Your task to perform on an android device: open app "Facebook Messenger" (install if not already installed) Image 0: 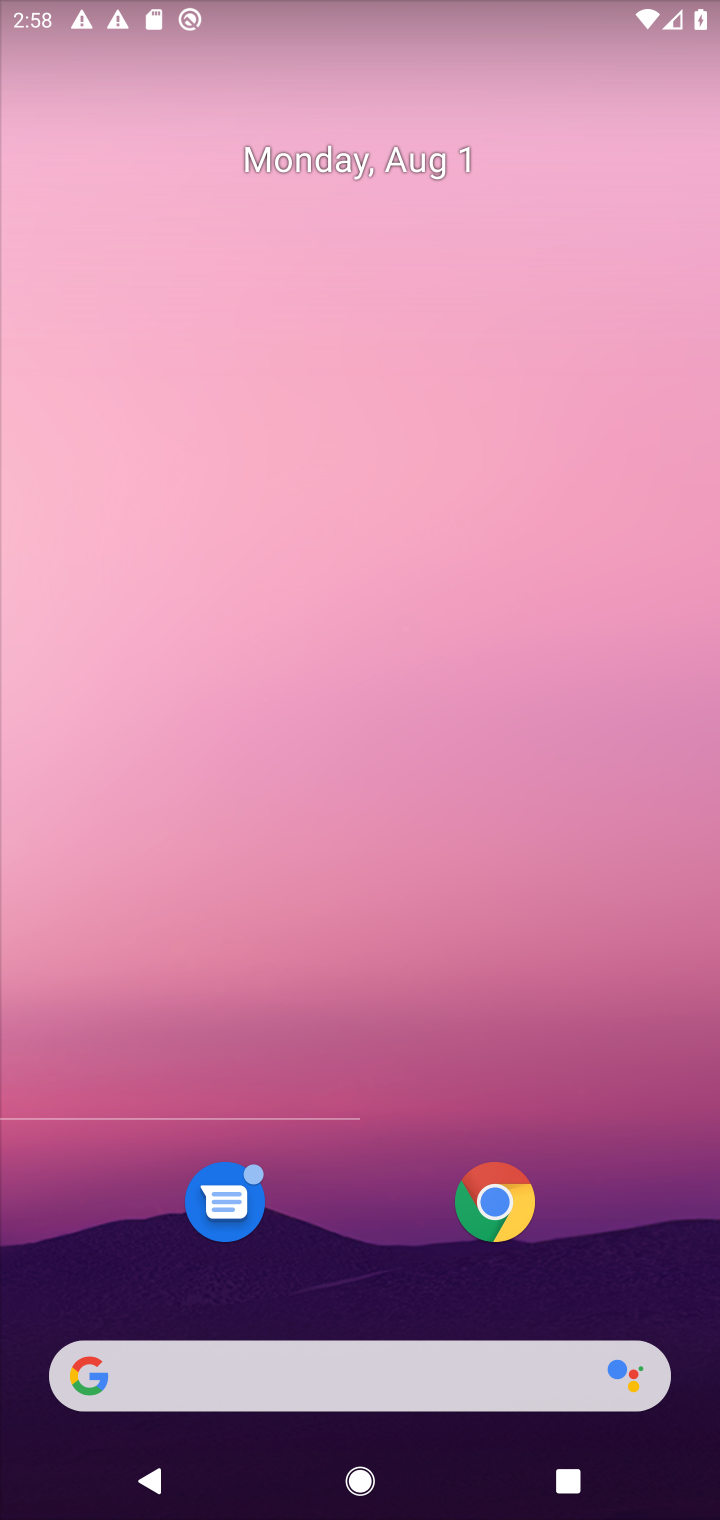
Step 0: press home button
Your task to perform on an android device: open app "Facebook Messenger" (install if not already installed) Image 1: 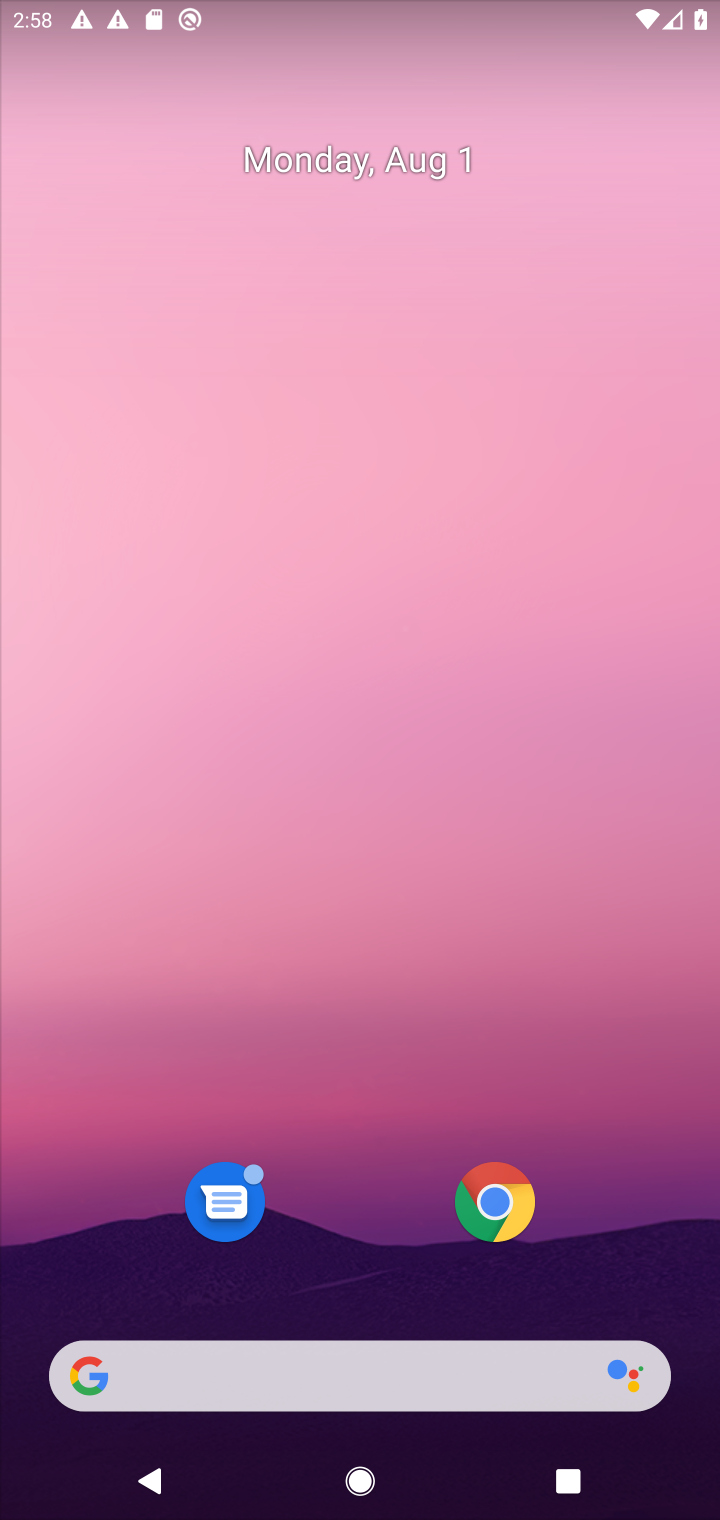
Step 1: drag from (608, 893) to (607, 201)
Your task to perform on an android device: open app "Facebook Messenger" (install if not already installed) Image 2: 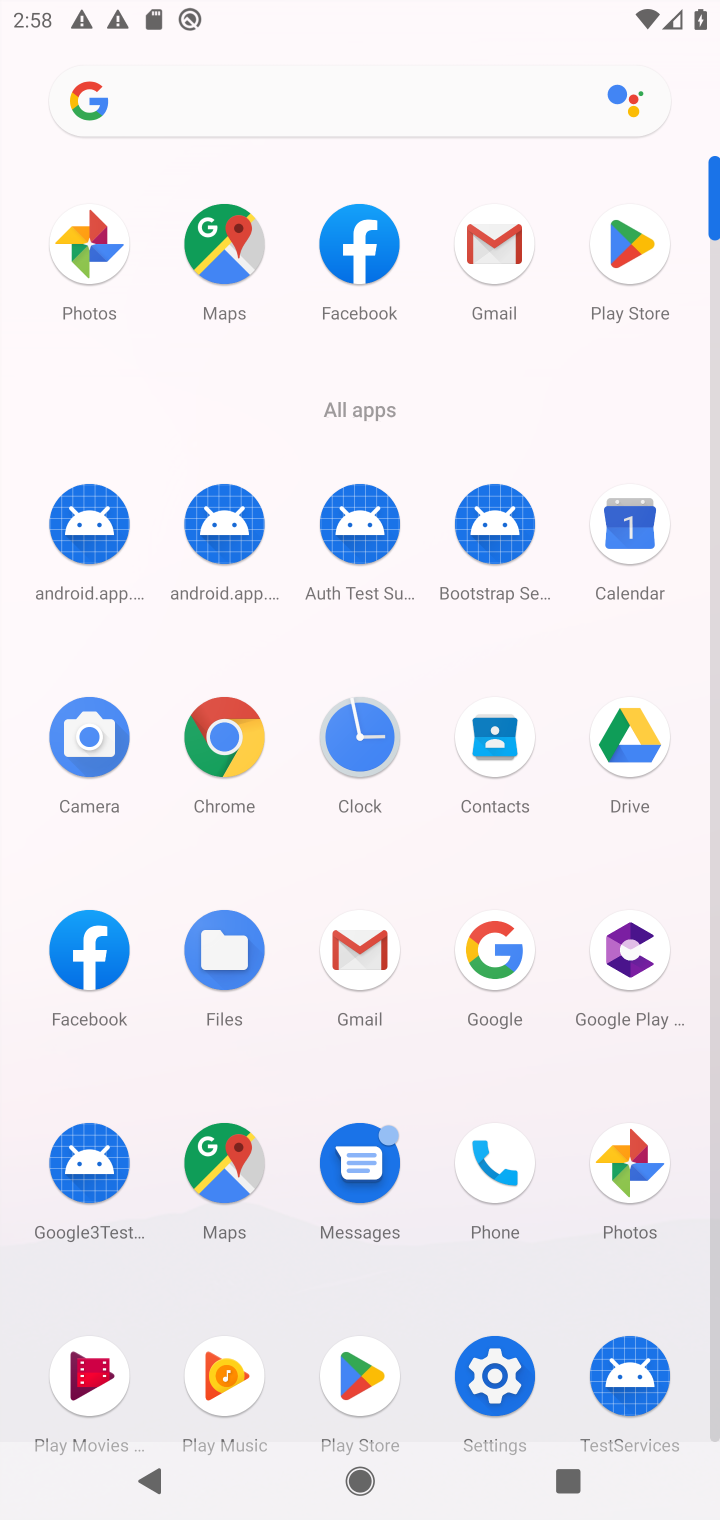
Step 2: click (352, 1383)
Your task to perform on an android device: open app "Facebook Messenger" (install if not already installed) Image 3: 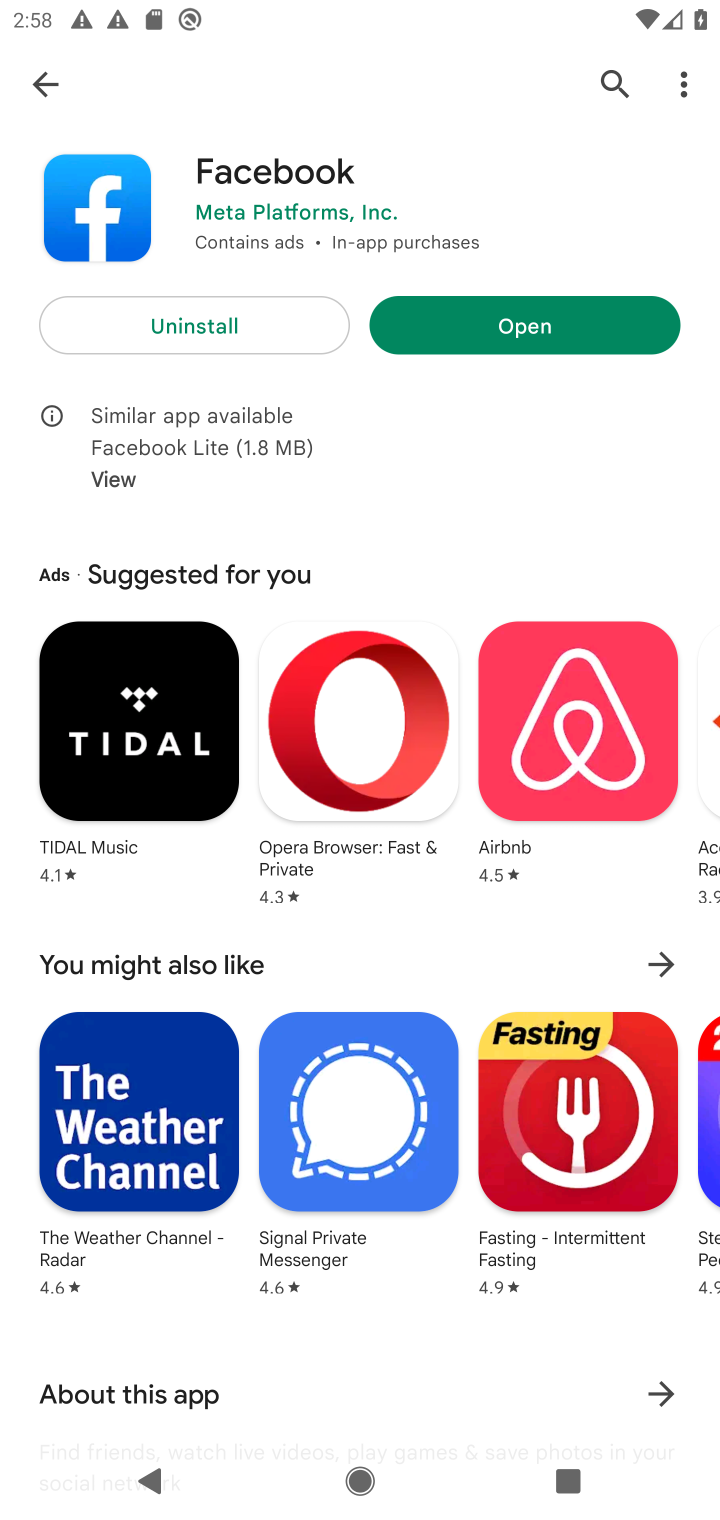
Step 3: click (623, 62)
Your task to perform on an android device: open app "Facebook Messenger" (install if not already installed) Image 4: 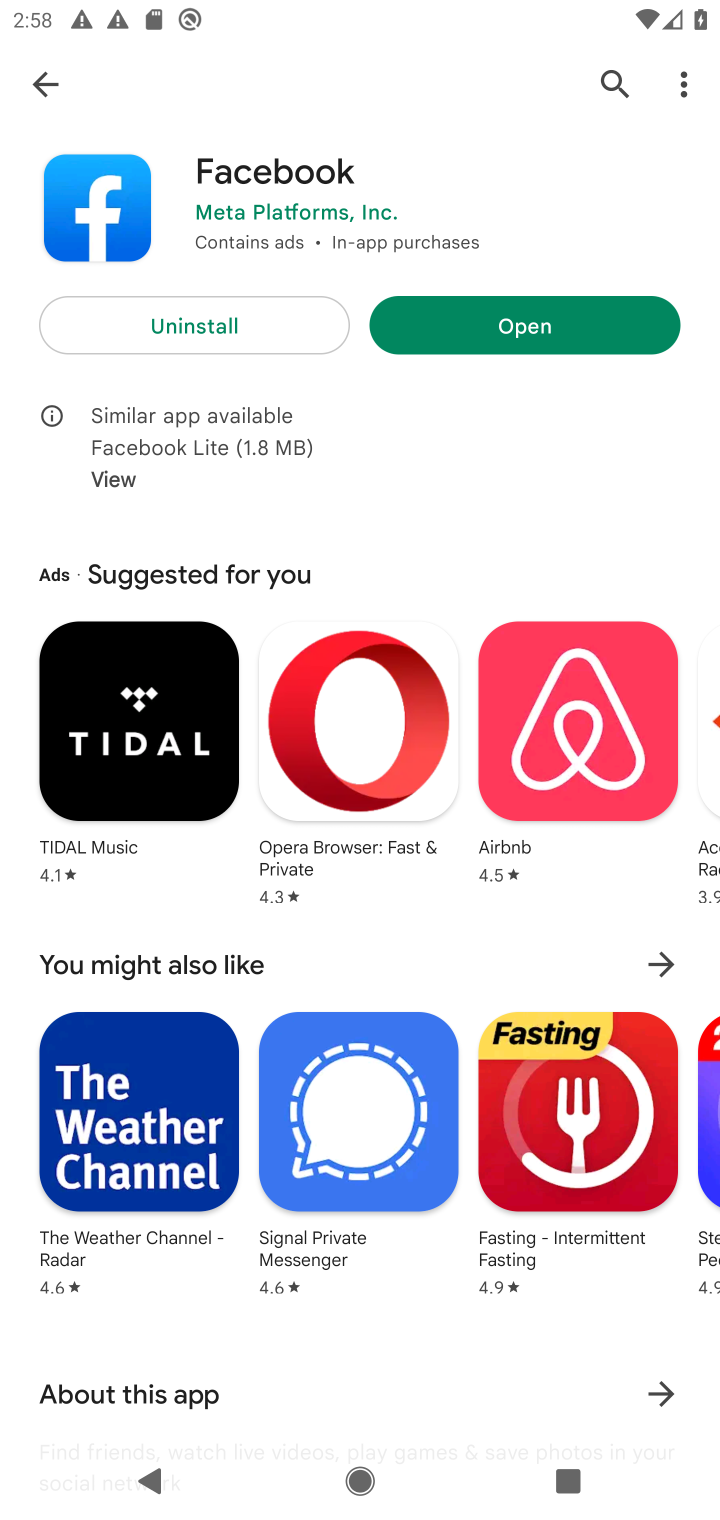
Step 4: click (613, 87)
Your task to perform on an android device: open app "Facebook Messenger" (install if not already installed) Image 5: 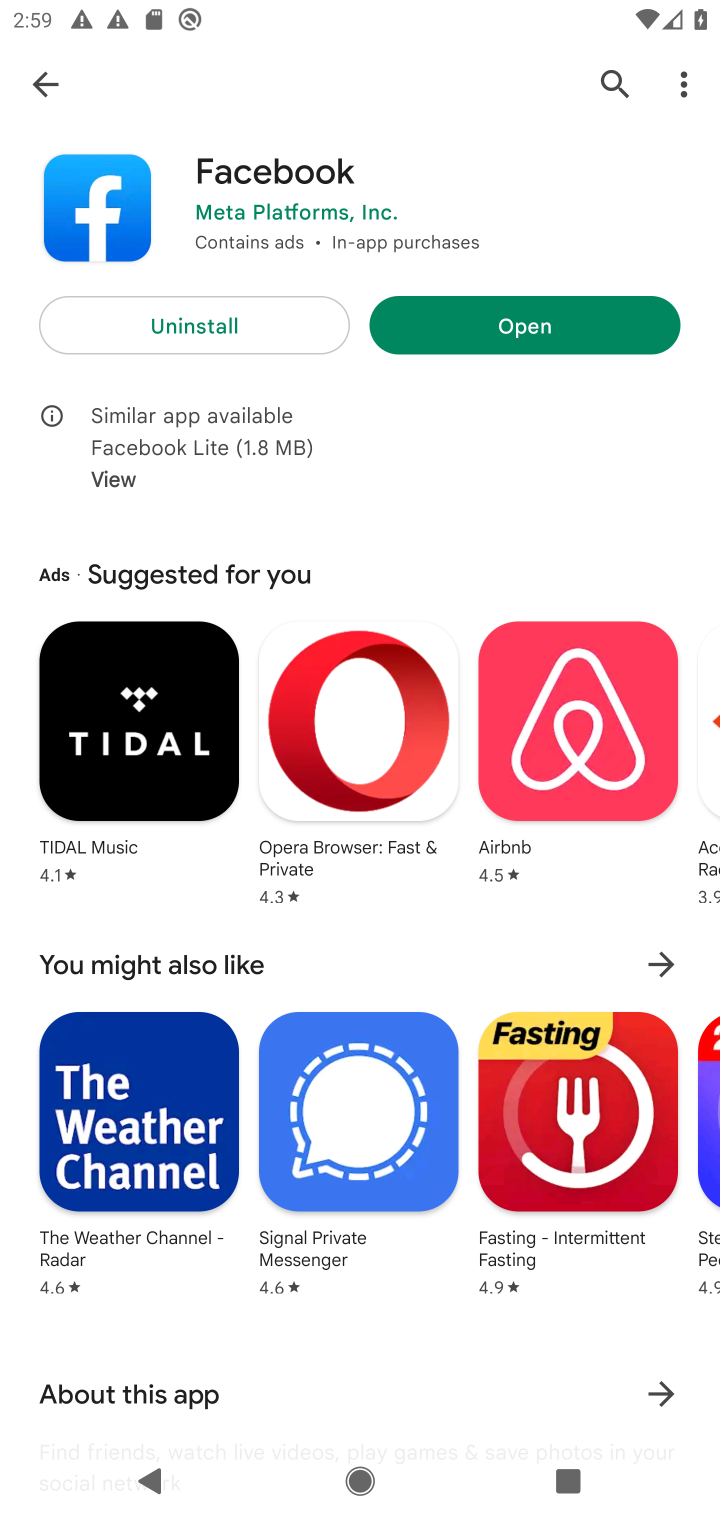
Step 5: click (600, 88)
Your task to perform on an android device: open app "Facebook Messenger" (install if not already installed) Image 6: 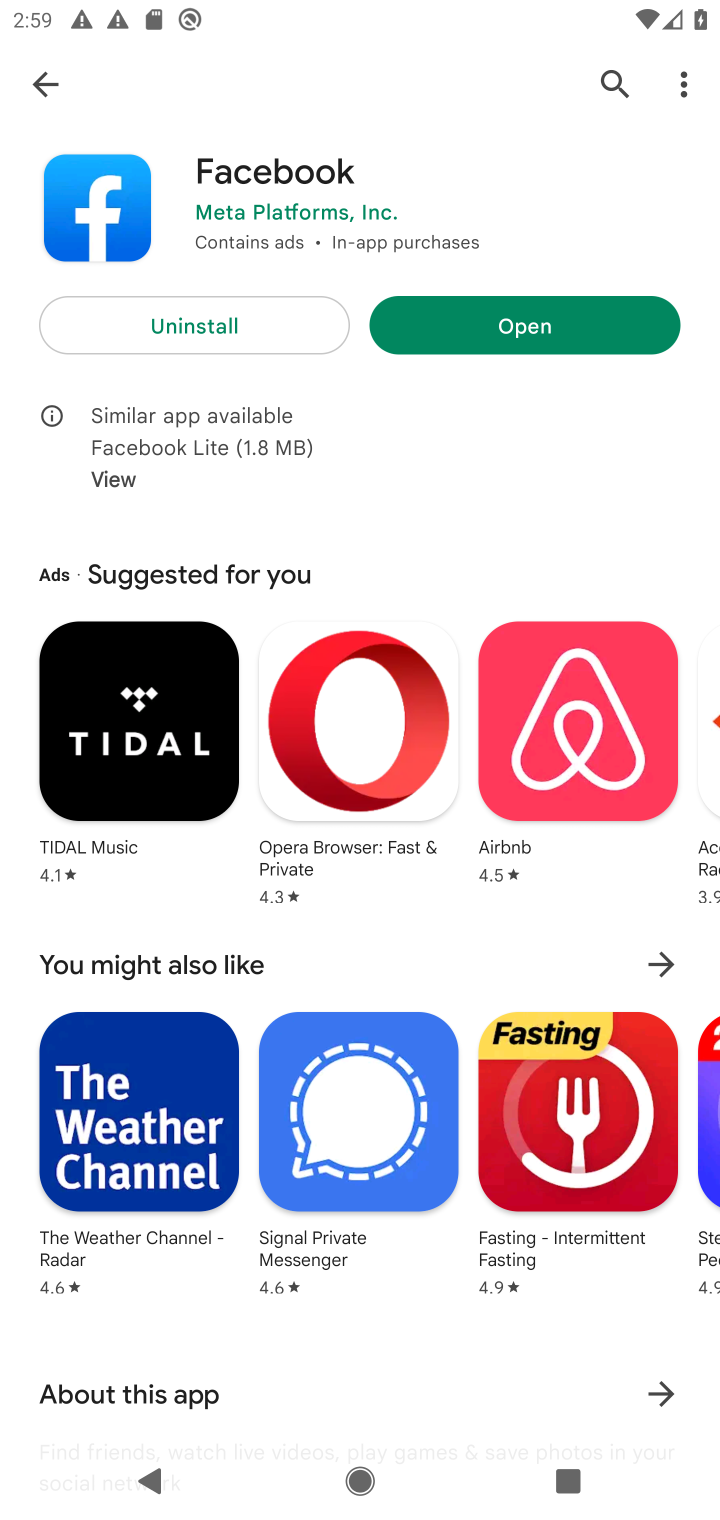
Step 6: click (46, 77)
Your task to perform on an android device: open app "Facebook Messenger" (install if not already installed) Image 7: 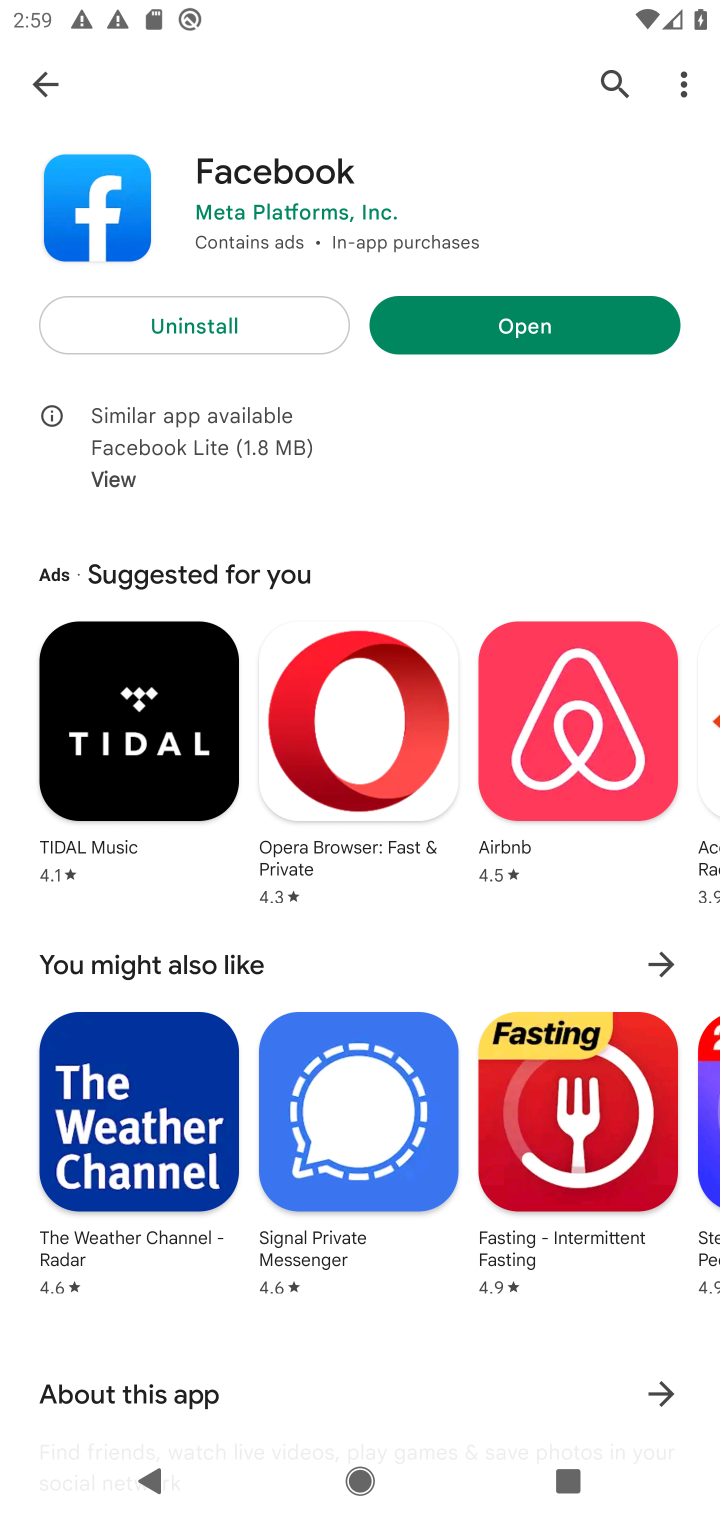
Step 7: press home button
Your task to perform on an android device: open app "Facebook Messenger" (install if not already installed) Image 8: 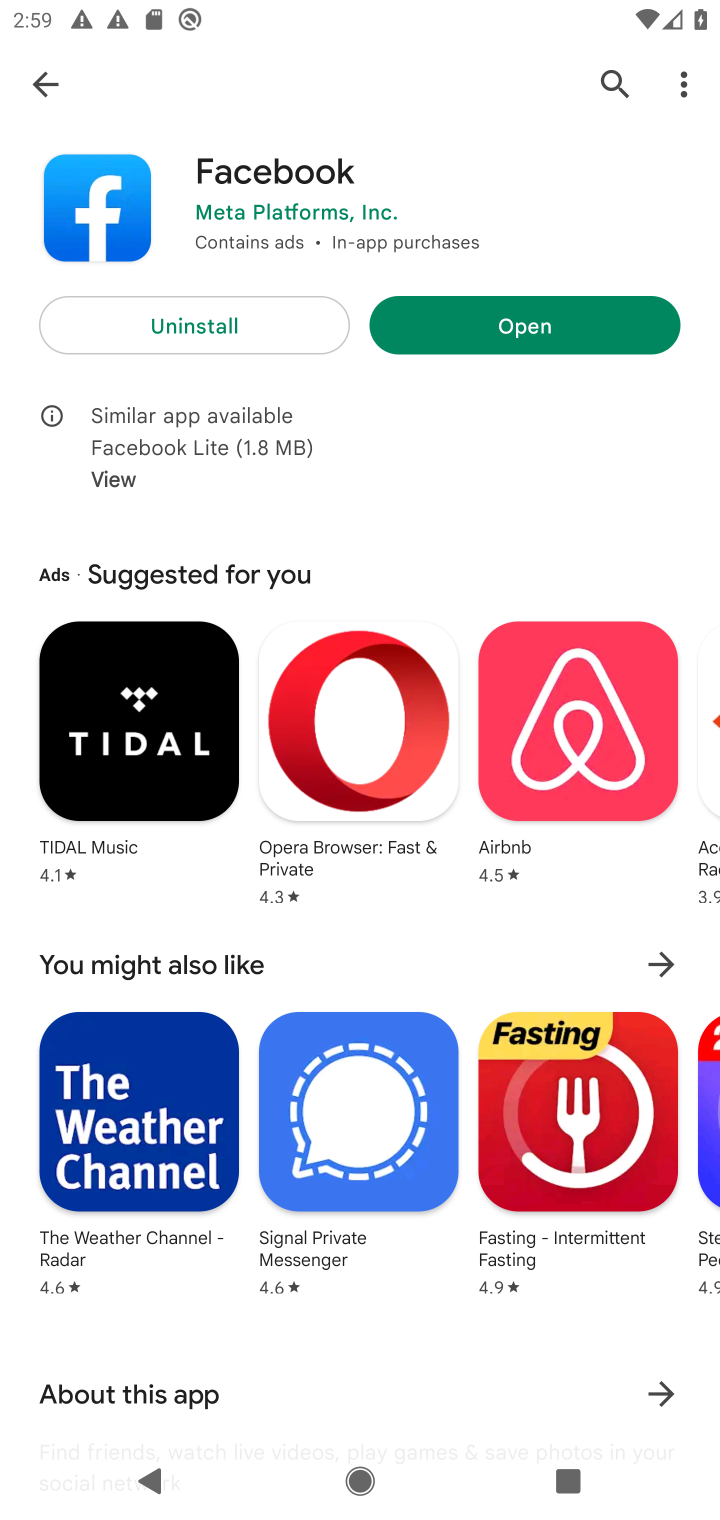
Step 8: press home button
Your task to perform on an android device: open app "Facebook Messenger" (install if not already installed) Image 9: 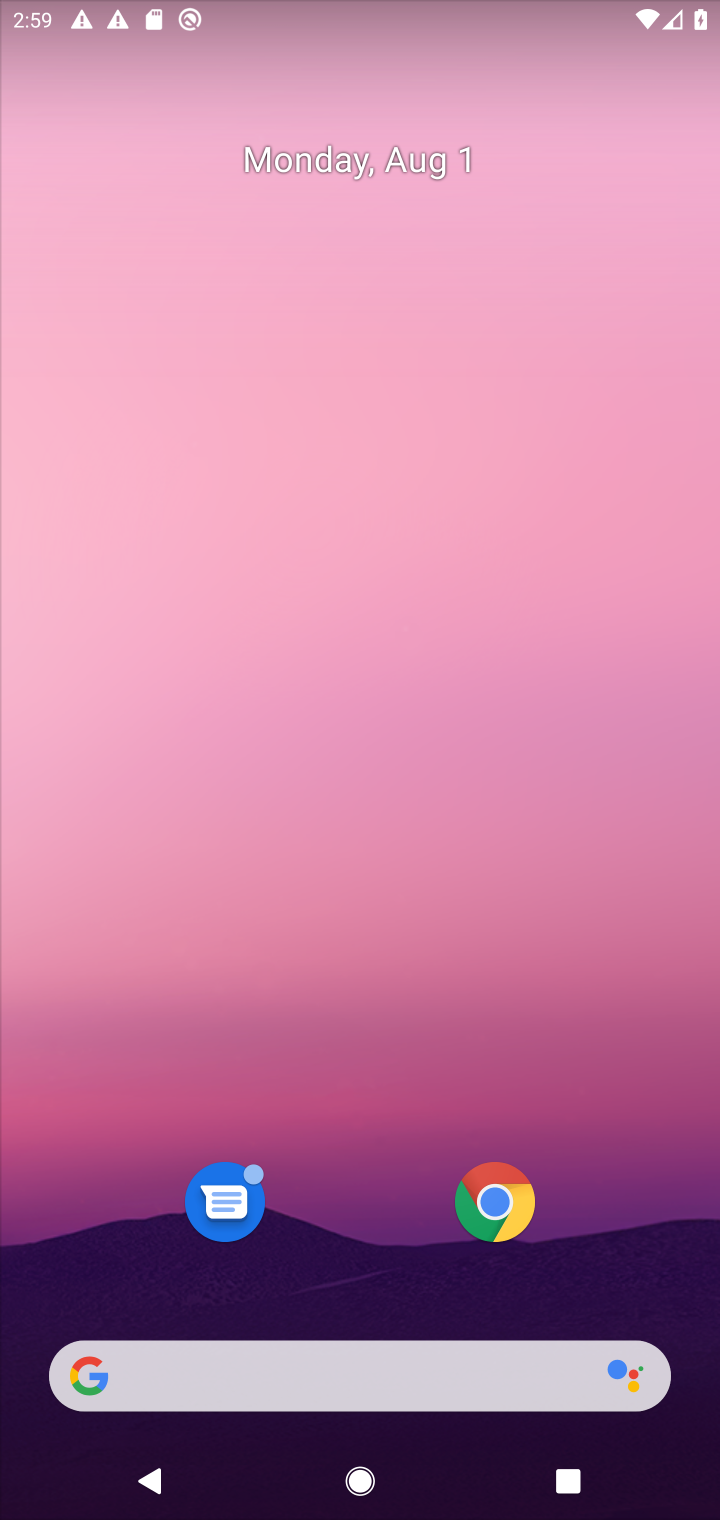
Step 9: click (556, 475)
Your task to perform on an android device: open app "Facebook Messenger" (install if not already installed) Image 10: 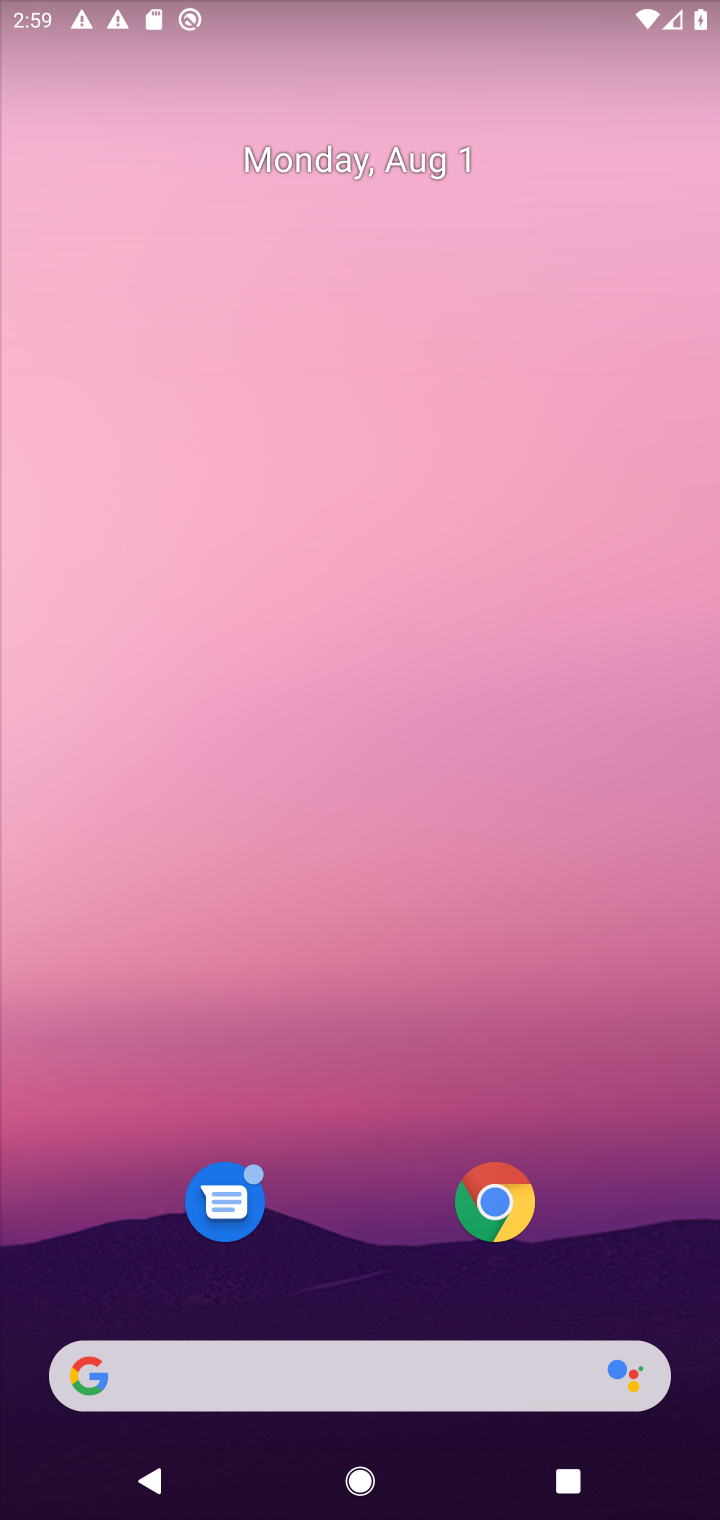
Step 10: drag from (620, 799) to (573, 213)
Your task to perform on an android device: open app "Facebook Messenger" (install if not already installed) Image 11: 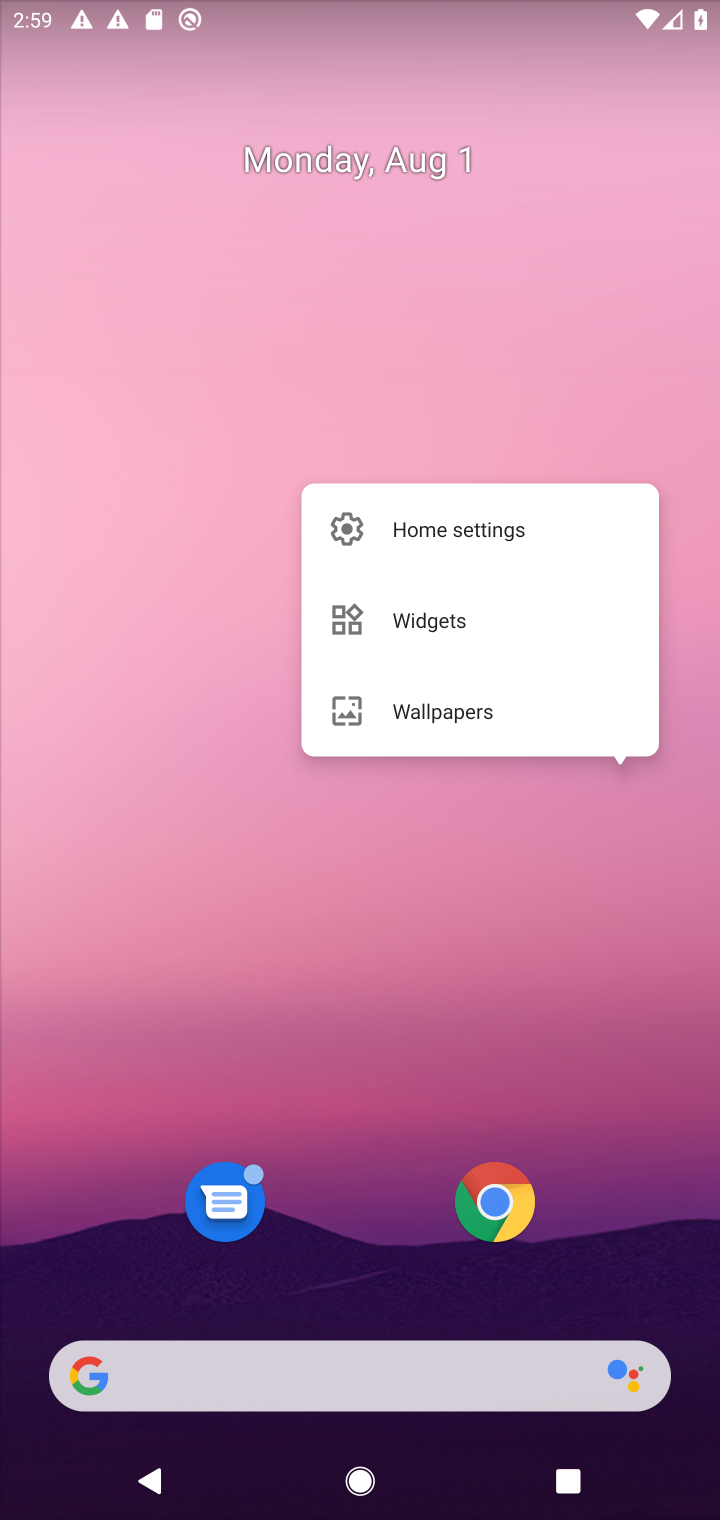
Step 11: drag from (506, 1063) to (445, 247)
Your task to perform on an android device: open app "Facebook Messenger" (install if not already installed) Image 12: 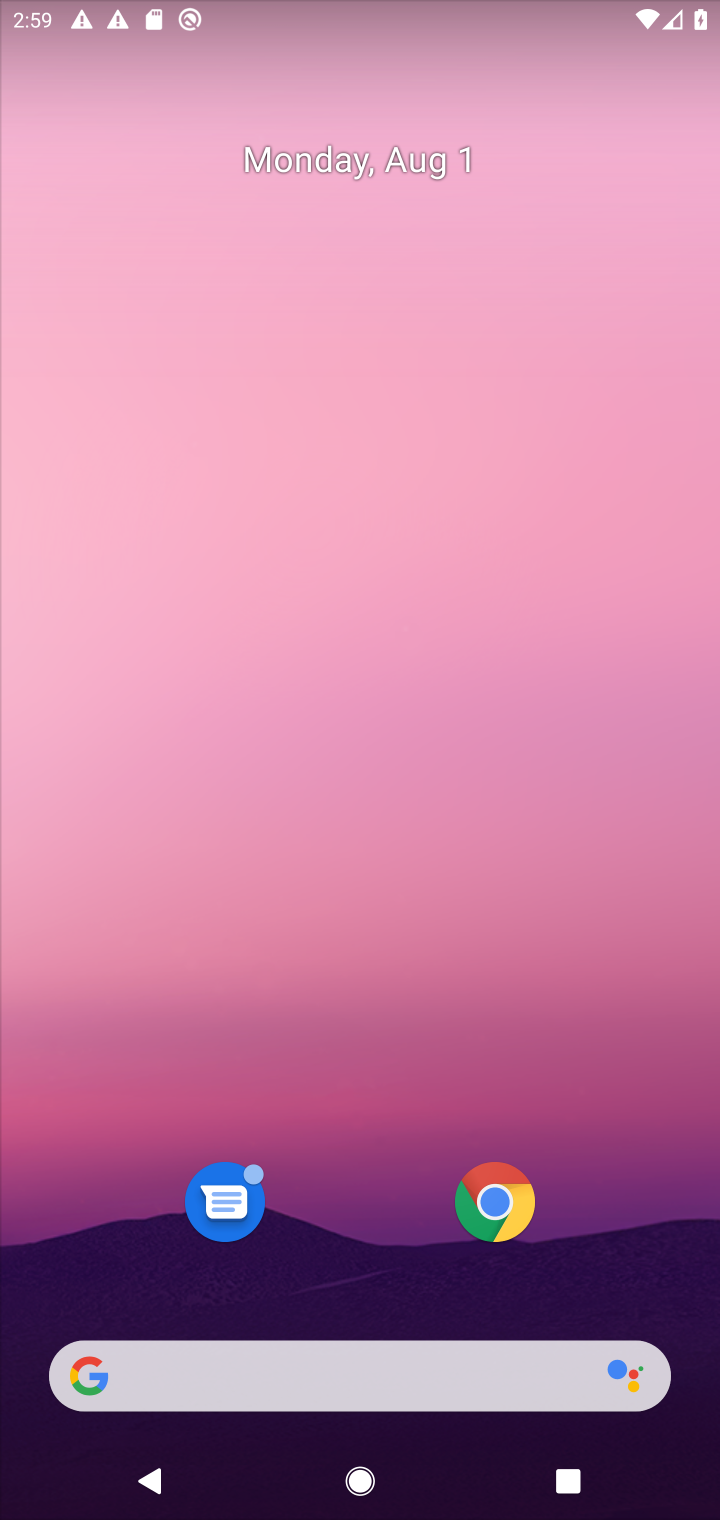
Step 12: click (634, 1044)
Your task to perform on an android device: open app "Facebook Messenger" (install if not already installed) Image 13: 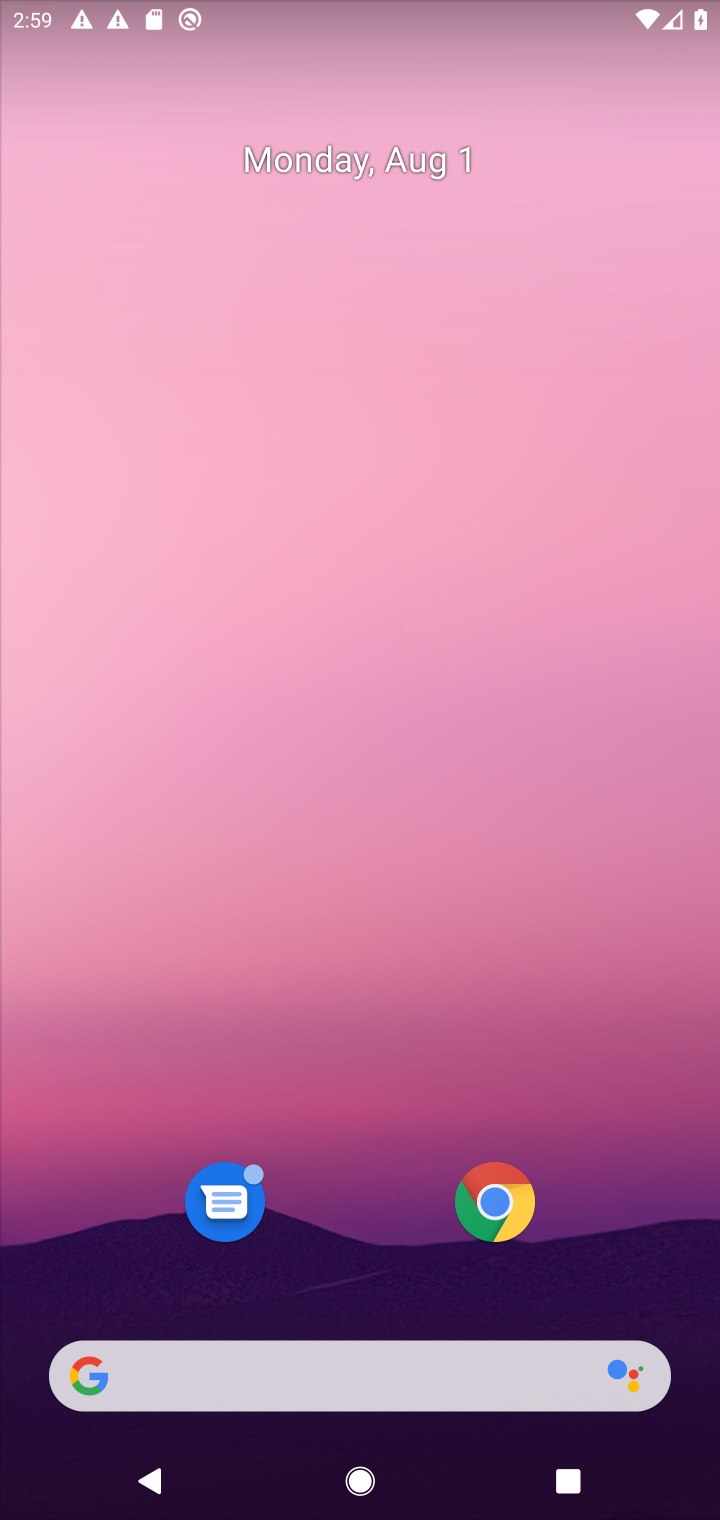
Step 13: drag from (588, 1087) to (538, 127)
Your task to perform on an android device: open app "Facebook Messenger" (install if not already installed) Image 14: 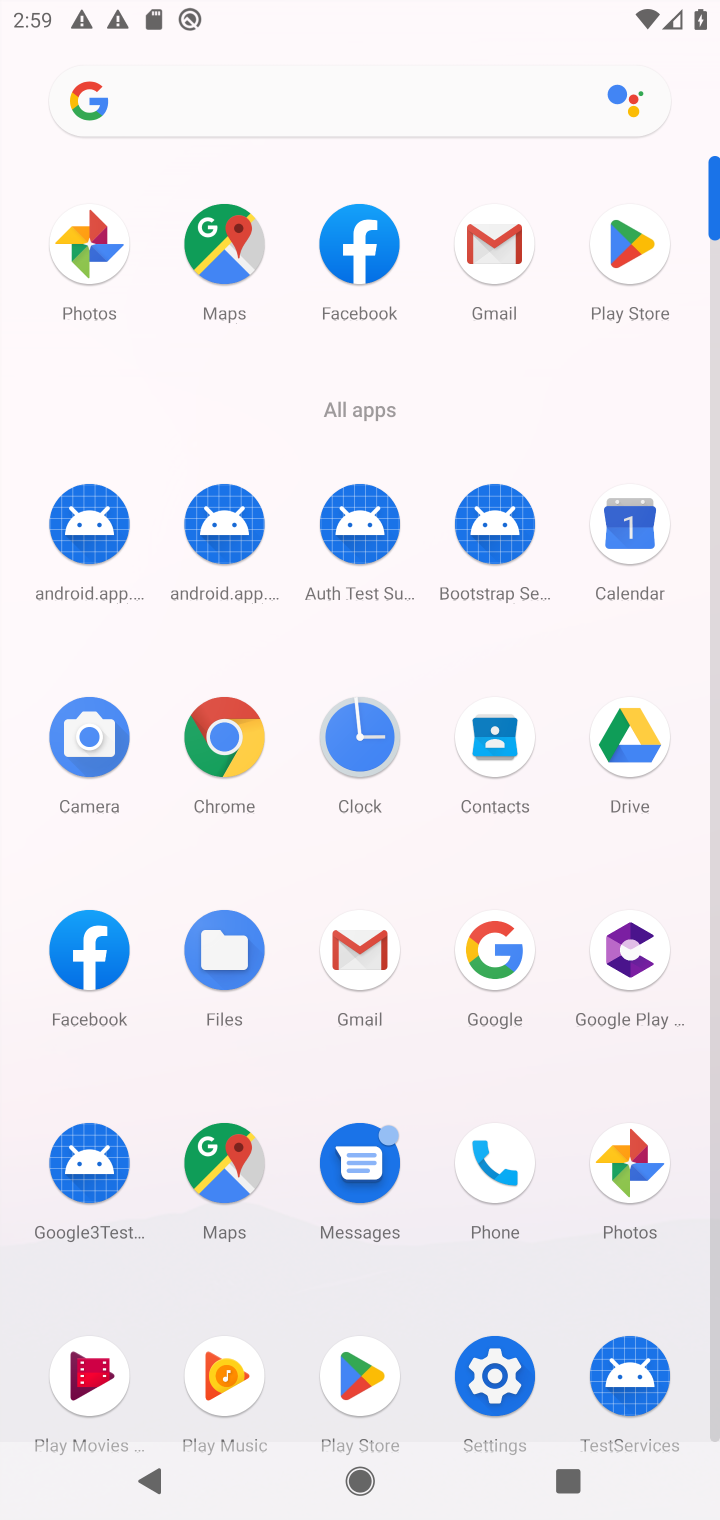
Step 14: click (642, 235)
Your task to perform on an android device: open app "Facebook Messenger" (install if not already installed) Image 15: 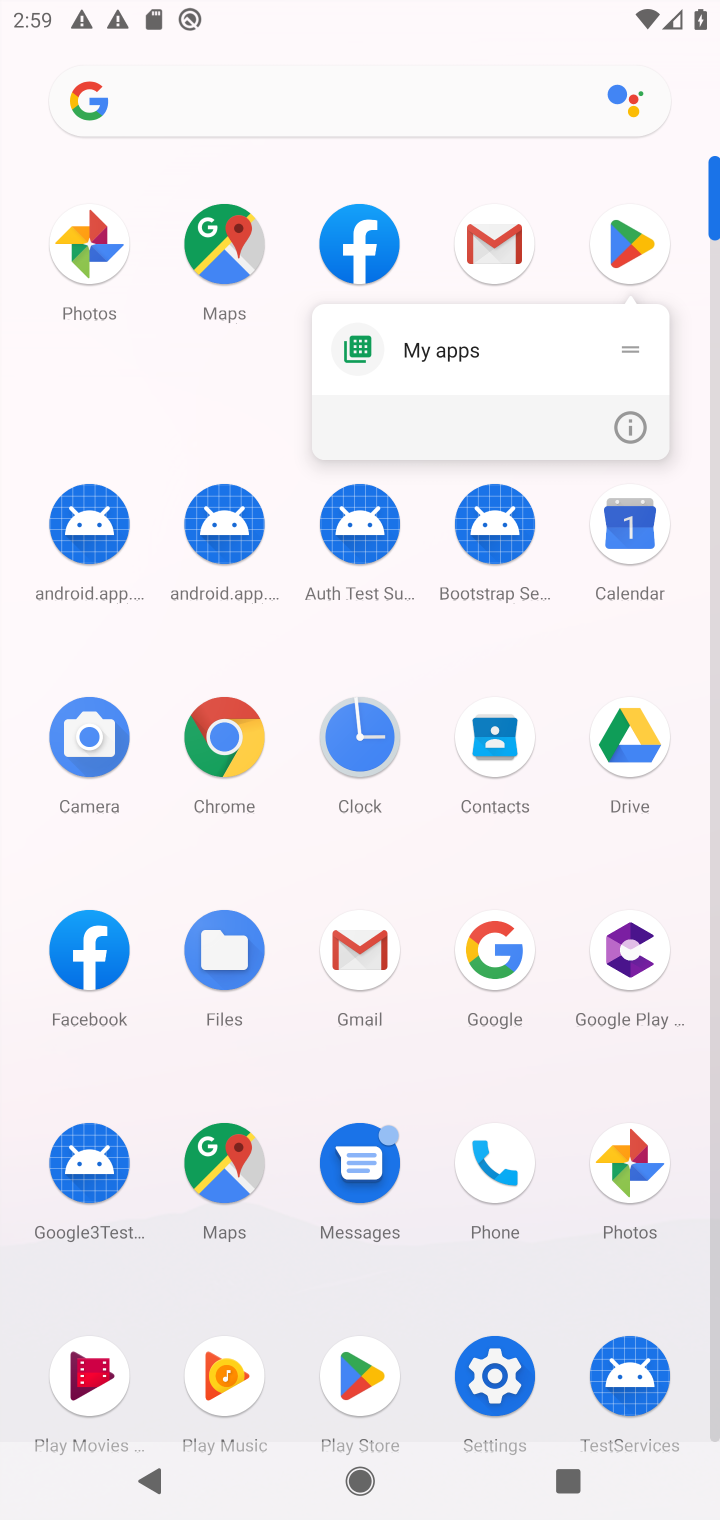
Step 15: click (620, 245)
Your task to perform on an android device: open app "Facebook Messenger" (install if not already installed) Image 16: 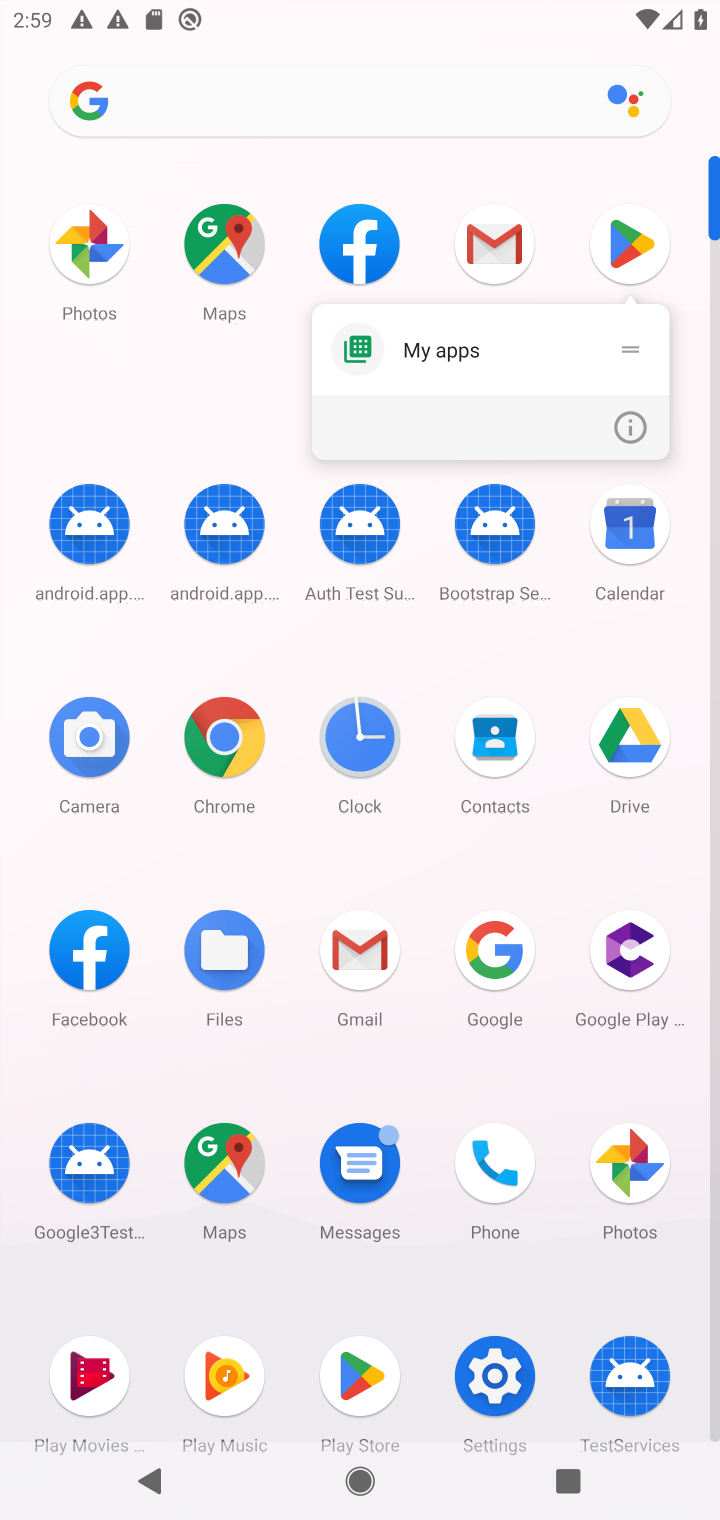
Step 16: click (625, 245)
Your task to perform on an android device: open app "Facebook Messenger" (install if not already installed) Image 17: 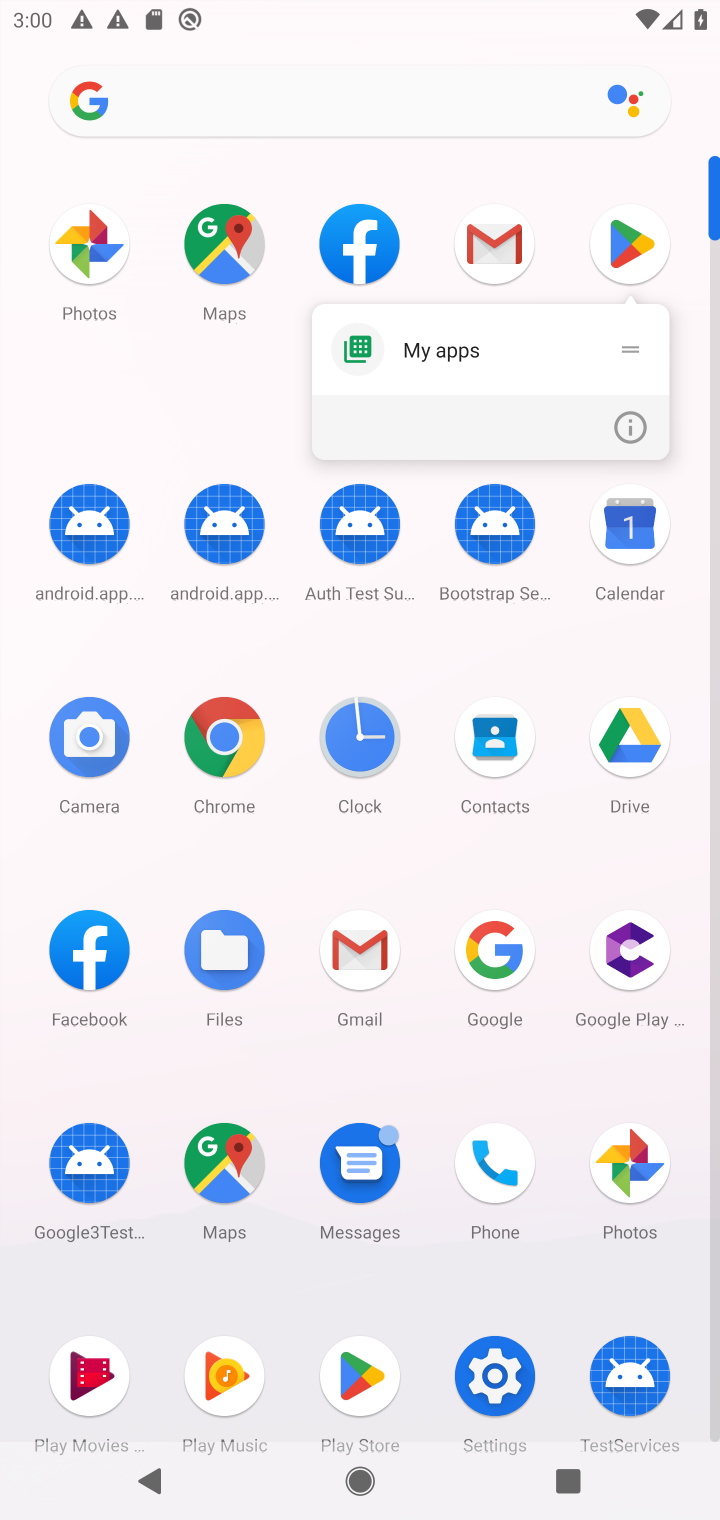
Step 17: click (357, 1395)
Your task to perform on an android device: open app "Facebook Messenger" (install if not already installed) Image 18: 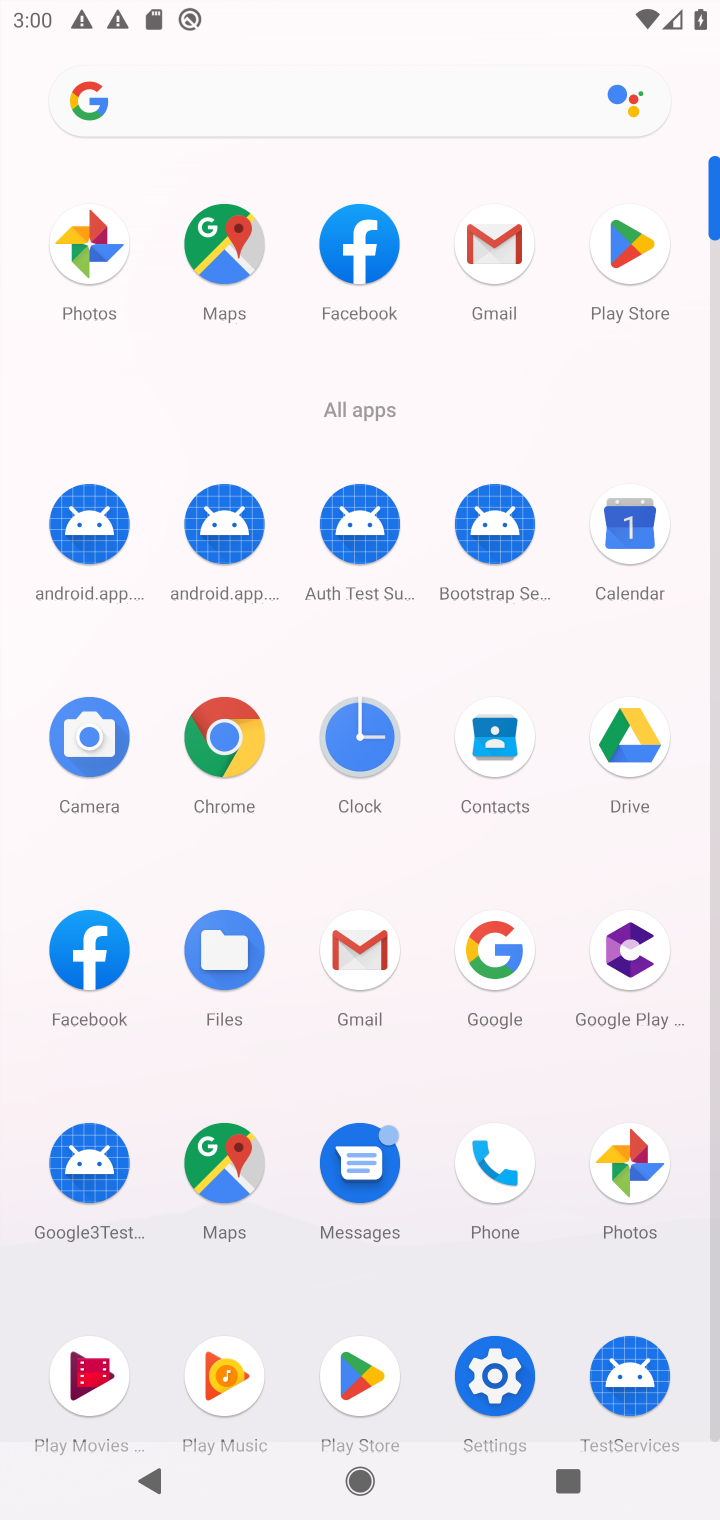
Step 18: click (357, 1377)
Your task to perform on an android device: open app "Facebook Messenger" (install if not already installed) Image 19: 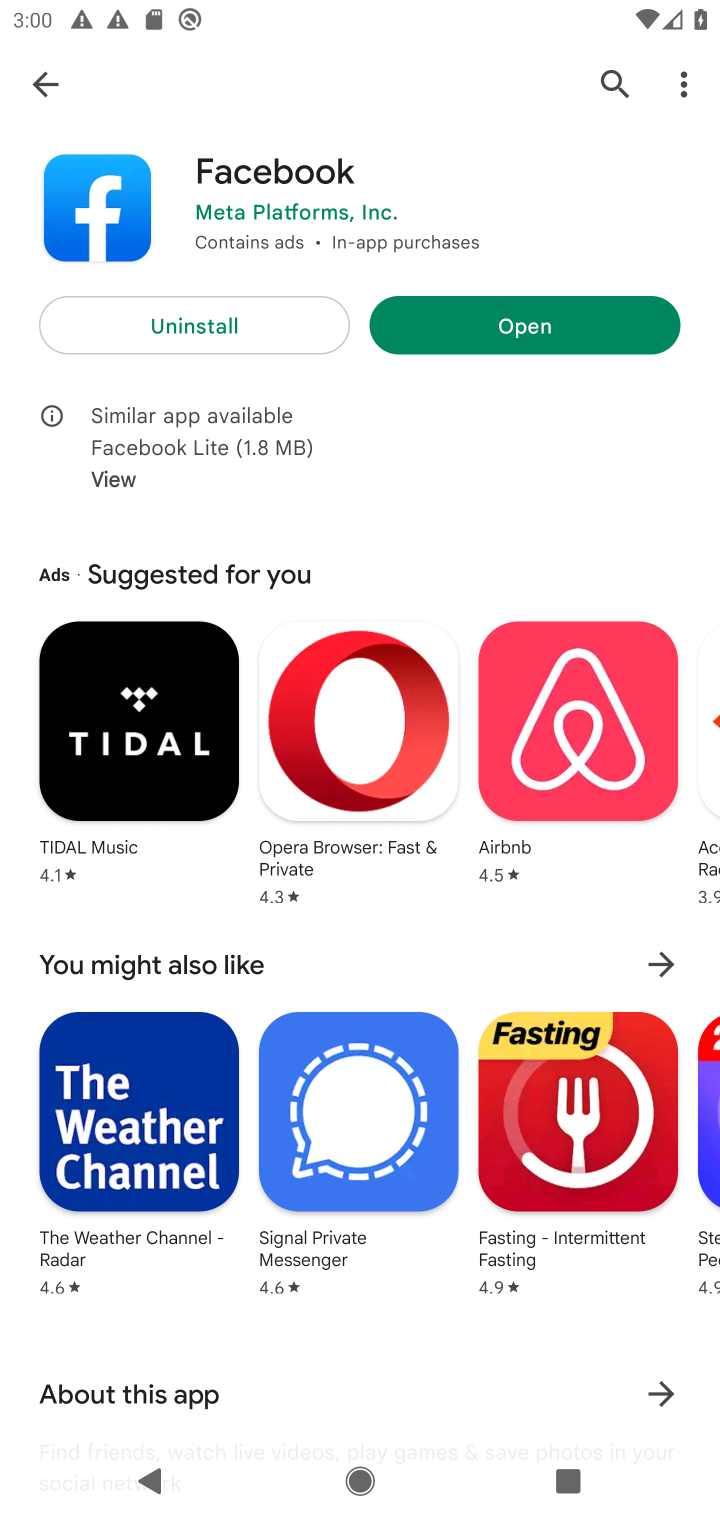
Step 19: click (558, 325)
Your task to perform on an android device: open app "Facebook Messenger" (install if not already installed) Image 20: 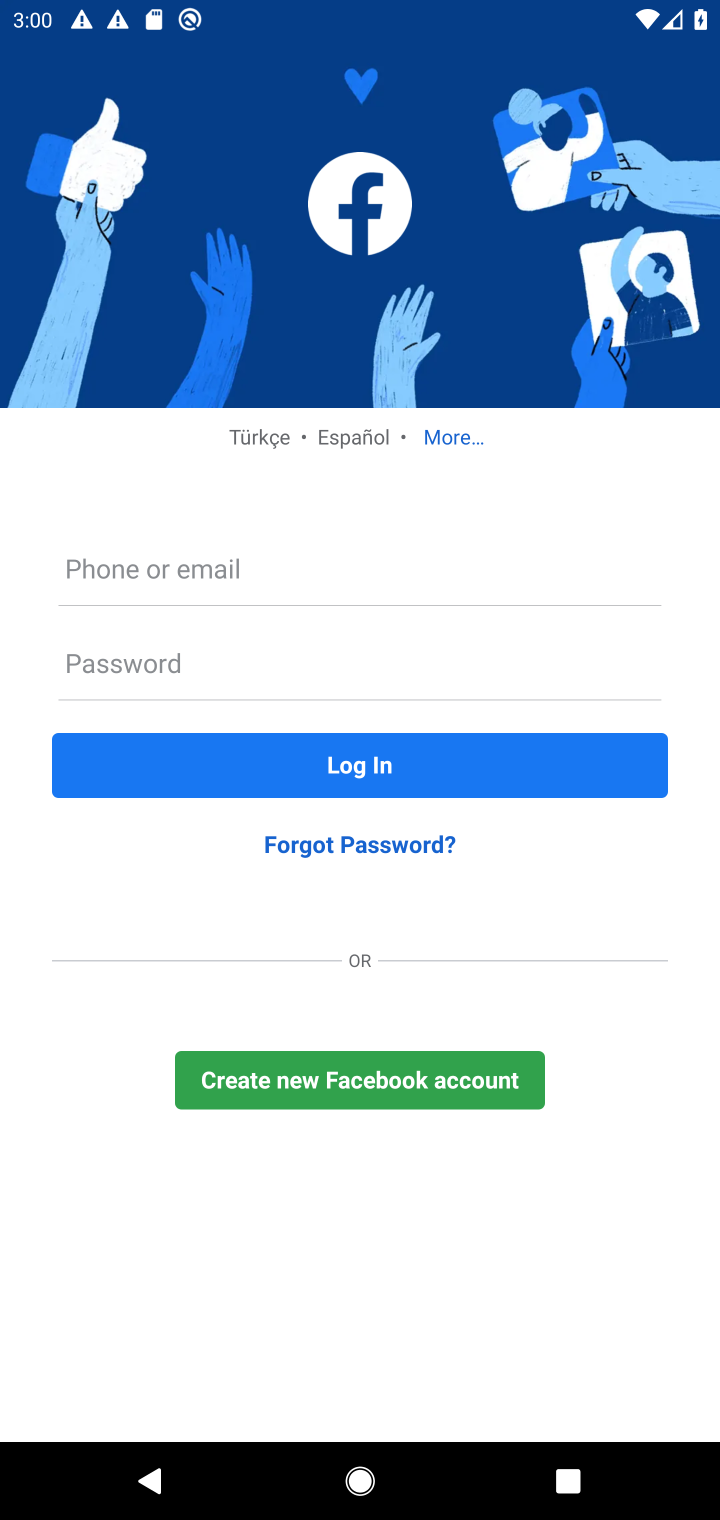
Step 20: task complete